Your task to perform on an android device: change text size in settings app Image 0: 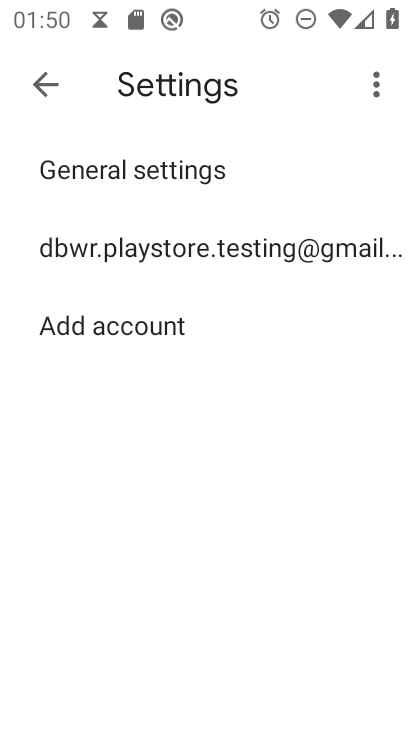
Step 0: press home button
Your task to perform on an android device: change text size in settings app Image 1: 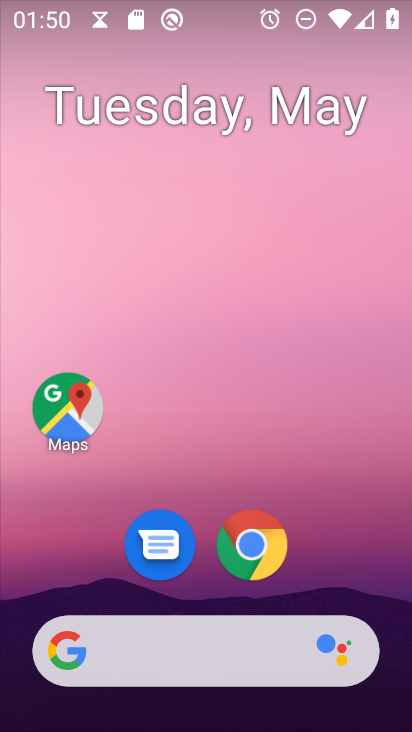
Step 1: drag from (335, 587) to (338, 6)
Your task to perform on an android device: change text size in settings app Image 2: 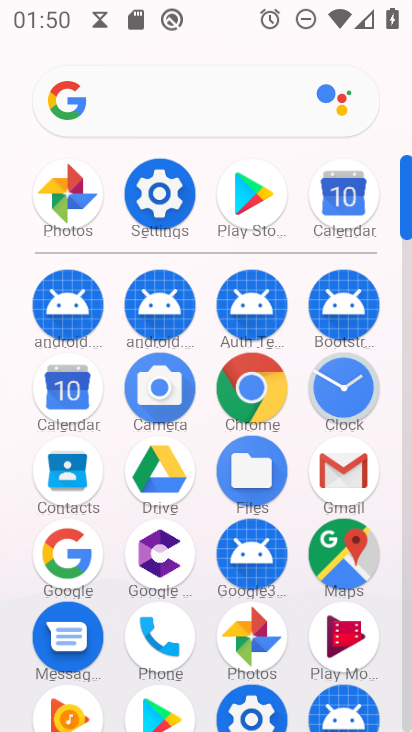
Step 2: click (149, 187)
Your task to perform on an android device: change text size in settings app Image 3: 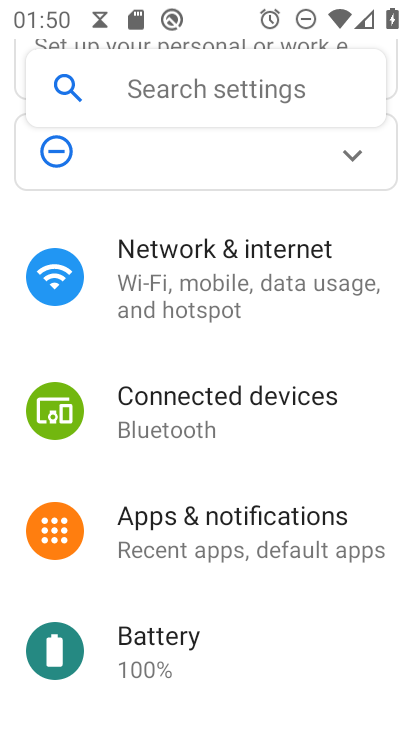
Step 3: drag from (312, 605) to (307, 412)
Your task to perform on an android device: change text size in settings app Image 4: 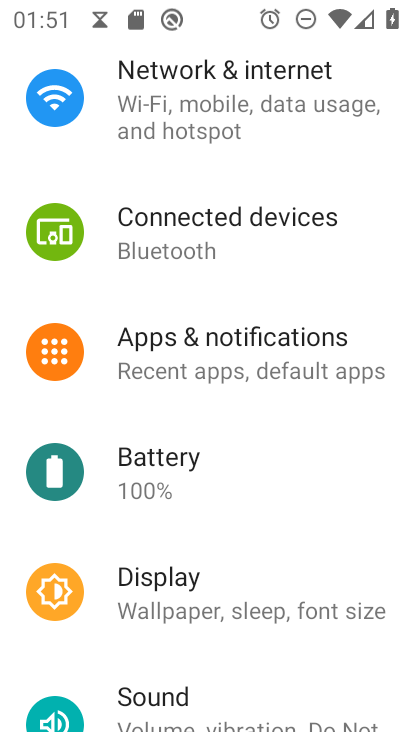
Step 4: drag from (278, 685) to (270, 574)
Your task to perform on an android device: change text size in settings app Image 5: 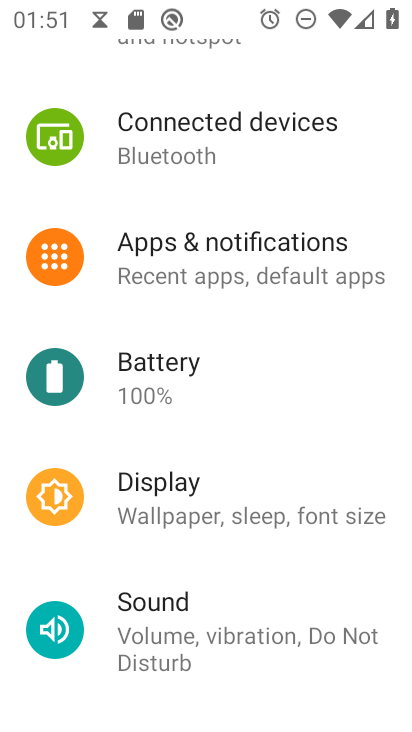
Step 5: click (171, 514)
Your task to perform on an android device: change text size in settings app Image 6: 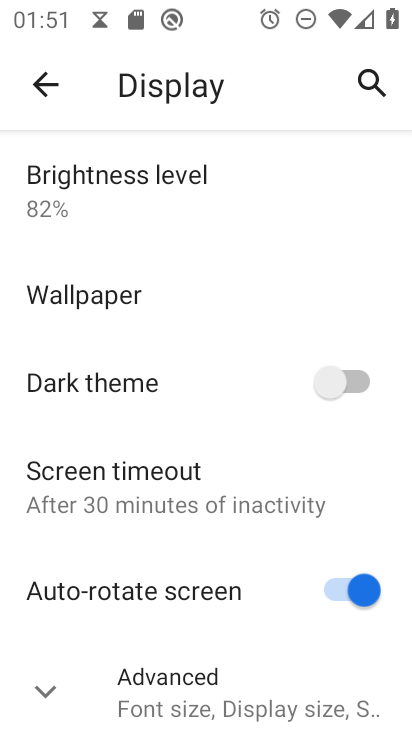
Step 6: click (187, 704)
Your task to perform on an android device: change text size in settings app Image 7: 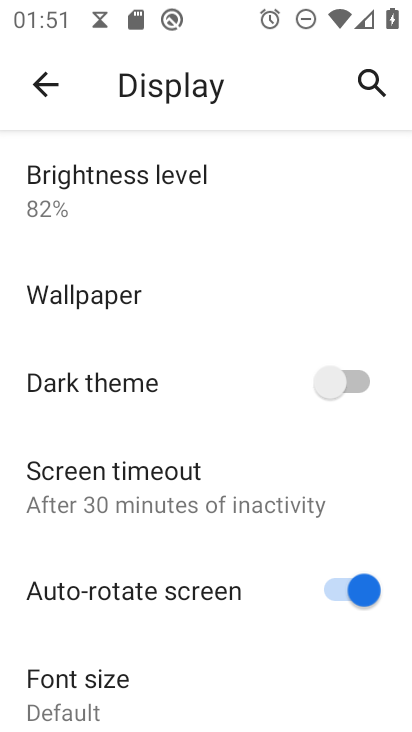
Step 7: drag from (187, 671) to (211, 187)
Your task to perform on an android device: change text size in settings app Image 8: 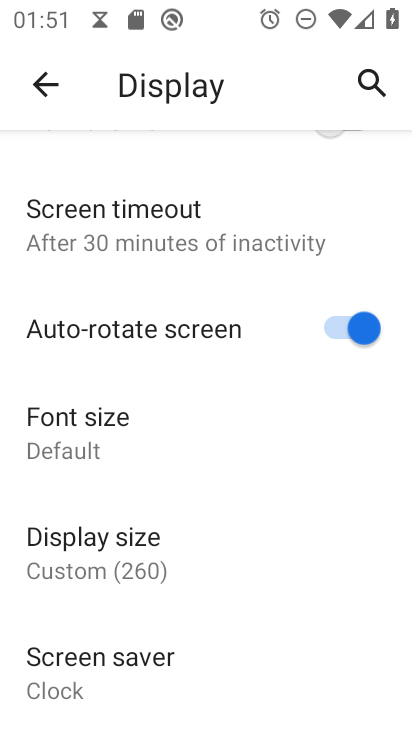
Step 8: click (64, 437)
Your task to perform on an android device: change text size in settings app Image 9: 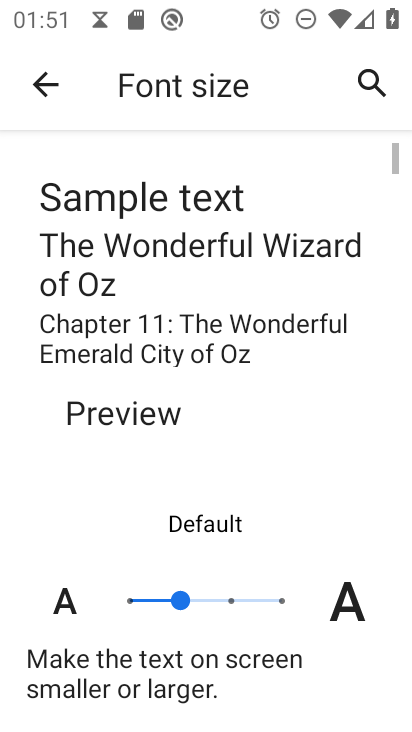
Step 9: click (238, 602)
Your task to perform on an android device: change text size in settings app Image 10: 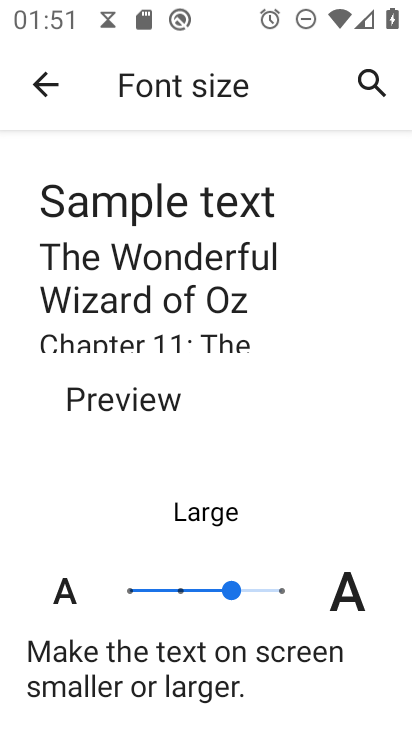
Step 10: task complete